Your task to perform on an android device: toggle pop-ups in chrome Image 0: 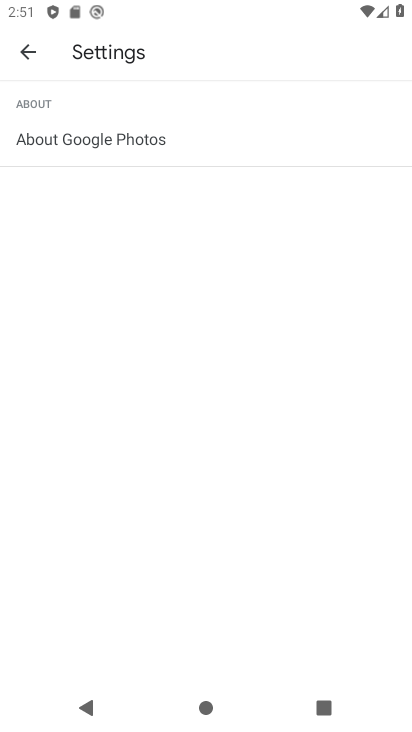
Step 0: press home button
Your task to perform on an android device: toggle pop-ups in chrome Image 1: 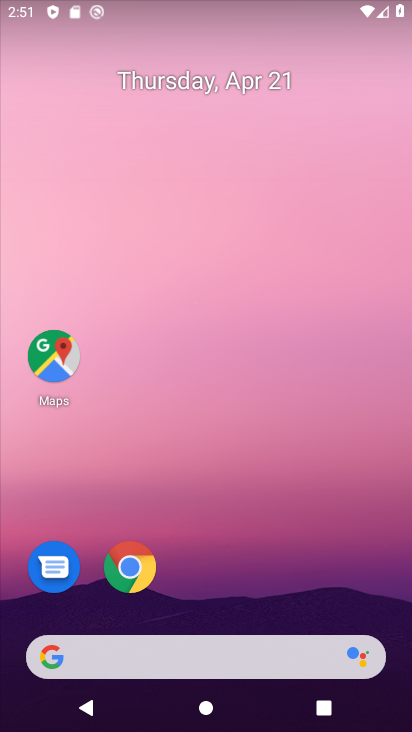
Step 1: click (129, 572)
Your task to perform on an android device: toggle pop-ups in chrome Image 2: 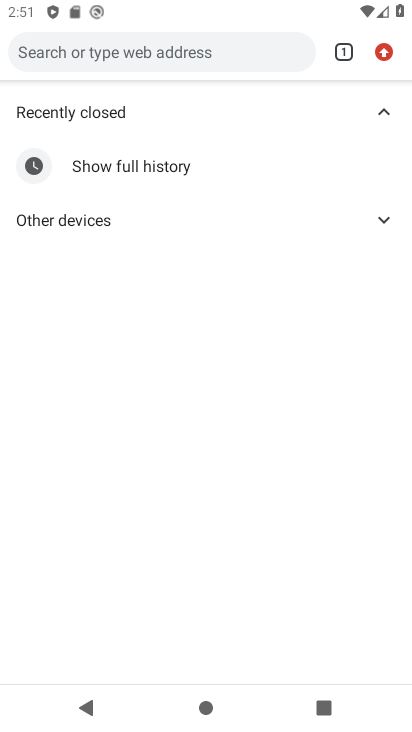
Step 2: click (381, 49)
Your task to perform on an android device: toggle pop-ups in chrome Image 3: 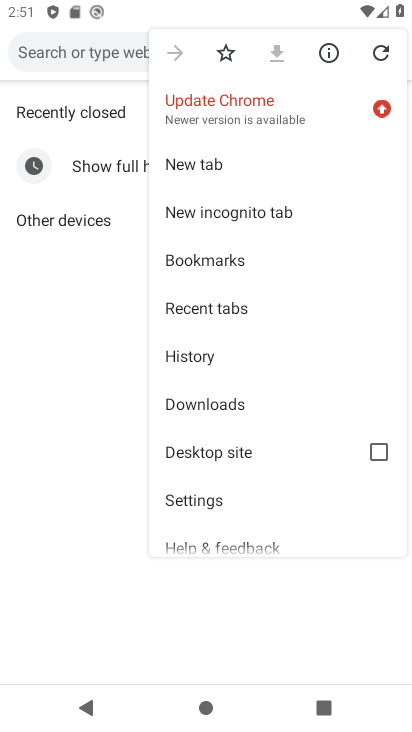
Step 3: click (202, 509)
Your task to perform on an android device: toggle pop-ups in chrome Image 4: 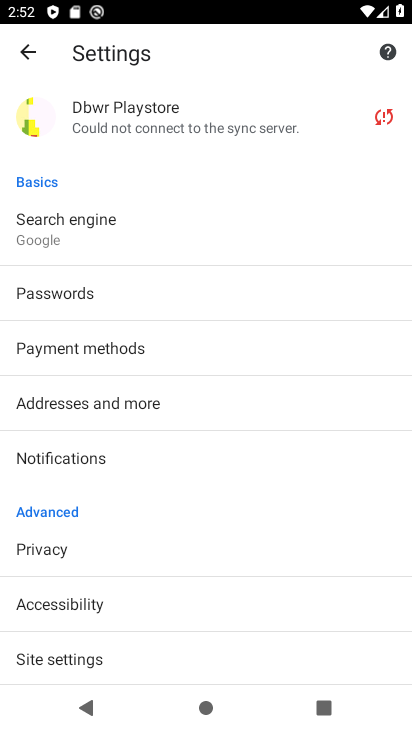
Step 4: click (69, 648)
Your task to perform on an android device: toggle pop-ups in chrome Image 5: 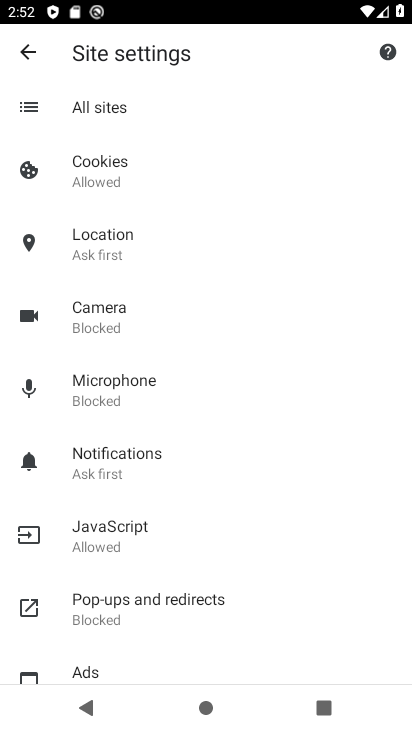
Step 5: click (206, 596)
Your task to perform on an android device: toggle pop-ups in chrome Image 6: 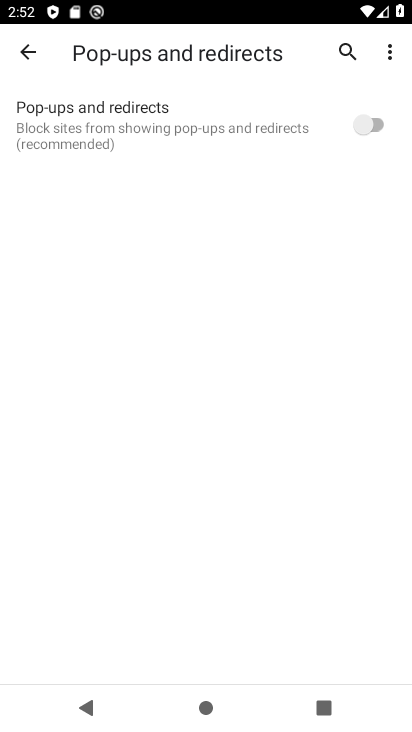
Step 6: click (364, 125)
Your task to perform on an android device: toggle pop-ups in chrome Image 7: 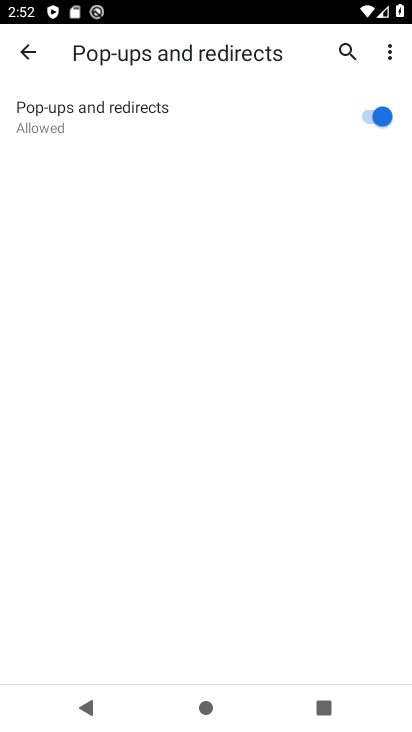
Step 7: click (364, 125)
Your task to perform on an android device: toggle pop-ups in chrome Image 8: 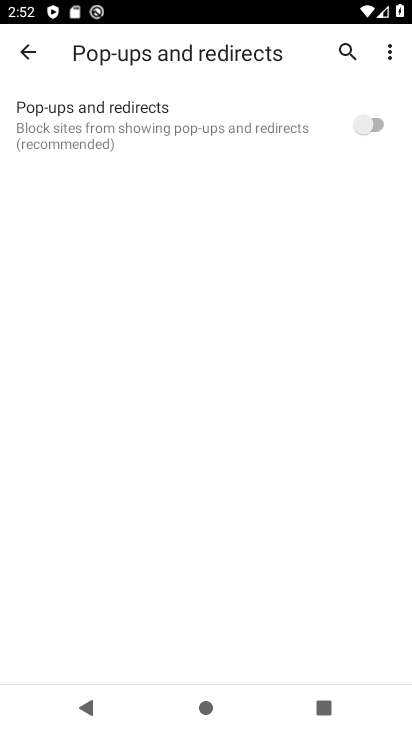
Step 8: click (364, 125)
Your task to perform on an android device: toggle pop-ups in chrome Image 9: 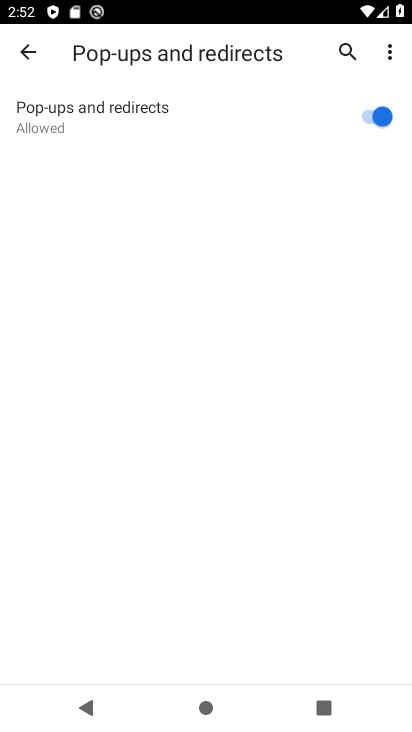
Step 9: task complete